Your task to perform on an android device: Open calendar and show me the fourth week of next month Image 0: 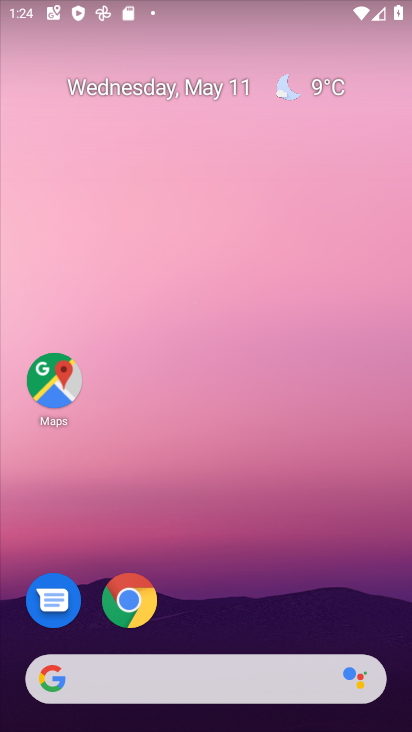
Step 0: drag from (137, 724) to (243, 30)
Your task to perform on an android device: Open calendar and show me the fourth week of next month Image 1: 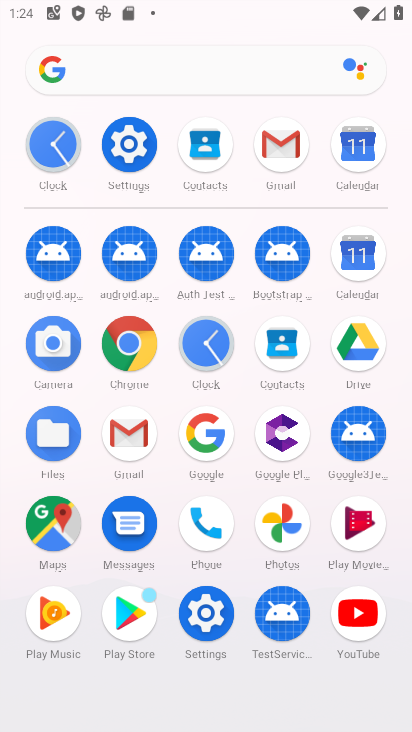
Step 1: click (355, 261)
Your task to perform on an android device: Open calendar and show me the fourth week of next month Image 2: 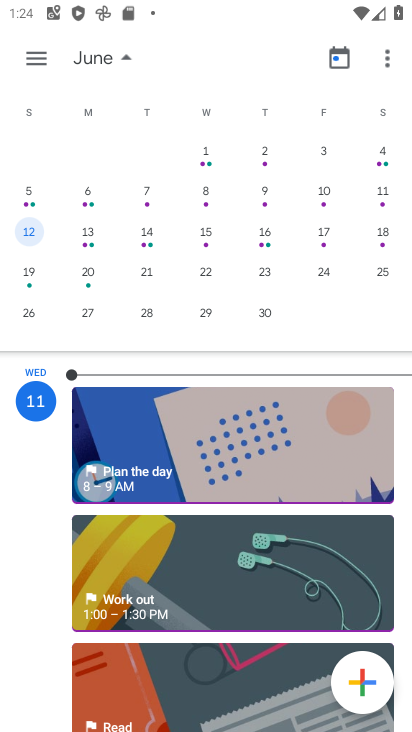
Step 2: click (25, 276)
Your task to perform on an android device: Open calendar and show me the fourth week of next month Image 3: 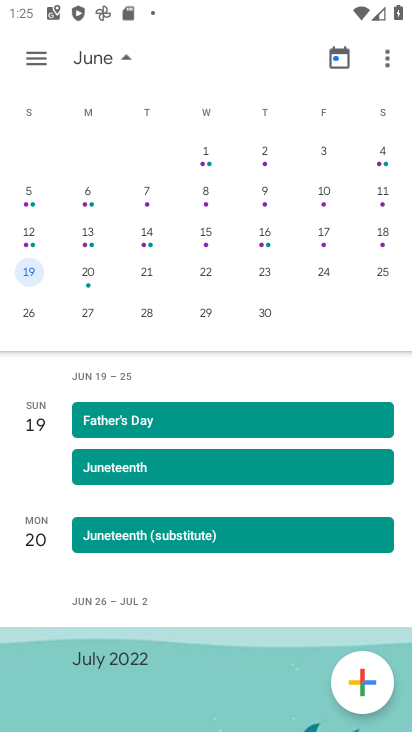
Step 3: task complete